Your task to perform on an android device: set the timer Image 0: 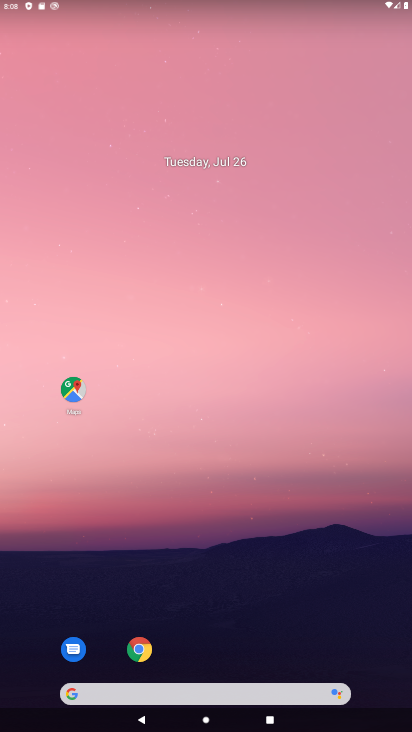
Step 0: drag from (211, 652) to (279, 153)
Your task to perform on an android device: set the timer Image 1: 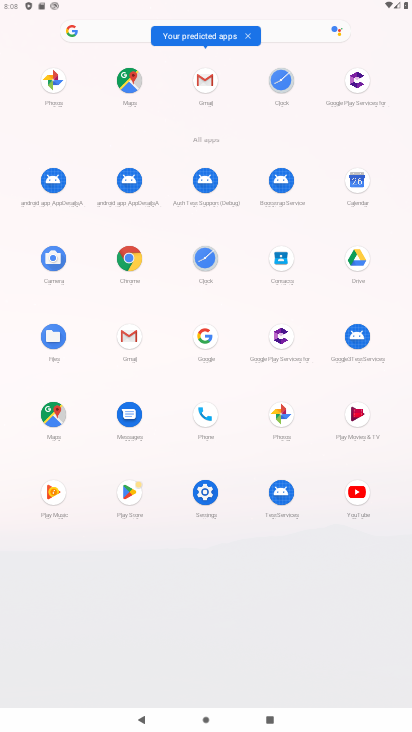
Step 1: click (290, 92)
Your task to perform on an android device: set the timer Image 2: 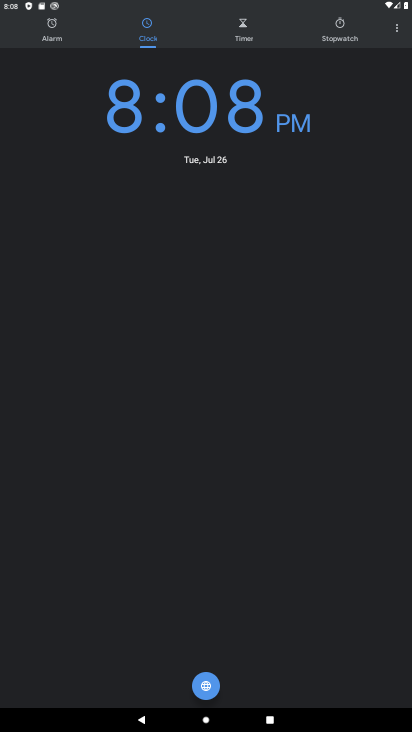
Step 2: click (261, 45)
Your task to perform on an android device: set the timer Image 3: 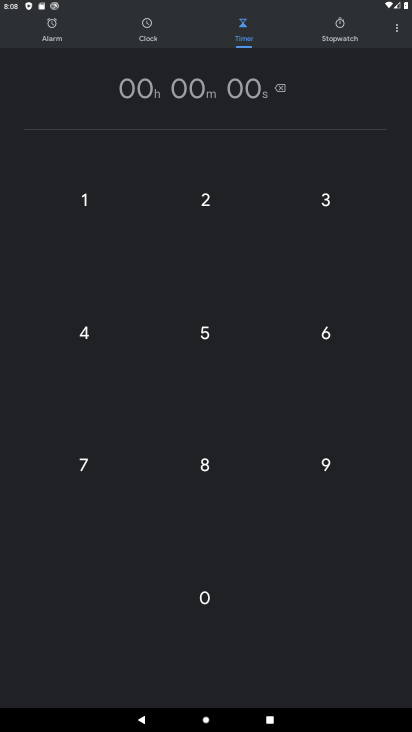
Step 3: click (315, 426)
Your task to perform on an android device: set the timer Image 4: 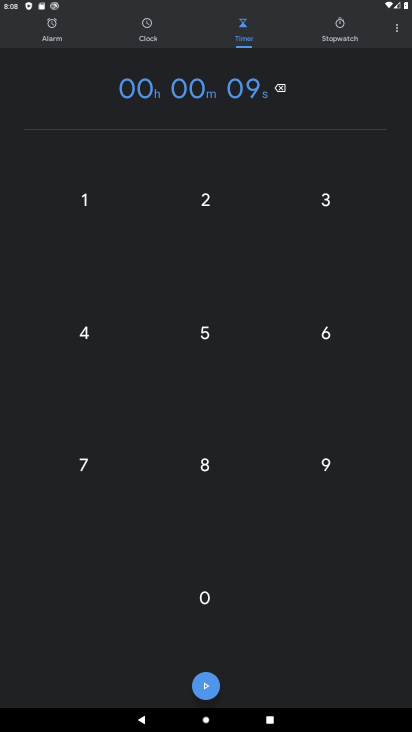
Step 4: click (214, 679)
Your task to perform on an android device: set the timer Image 5: 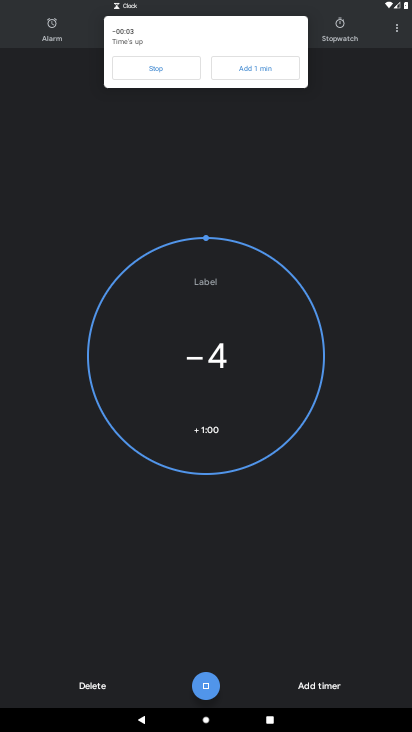
Step 5: task complete